Your task to perform on an android device: What's the weather? Image 0: 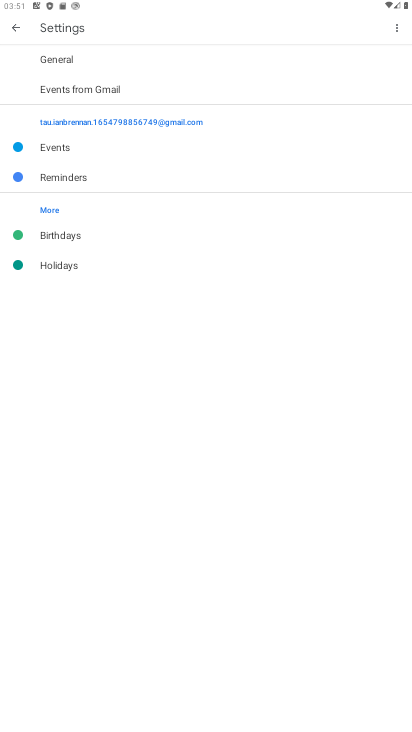
Step 0: press home button
Your task to perform on an android device: What's the weather? Image 1: 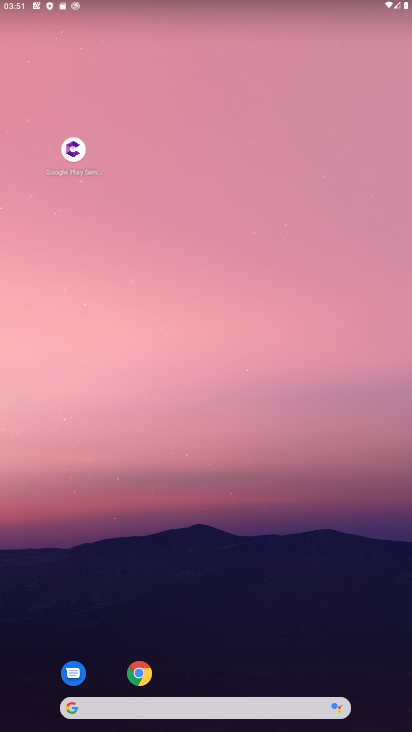
Step 1: drag from (305, 636) to (273, 106)
Your task to perform on an android device: What's the weather? Image 2: 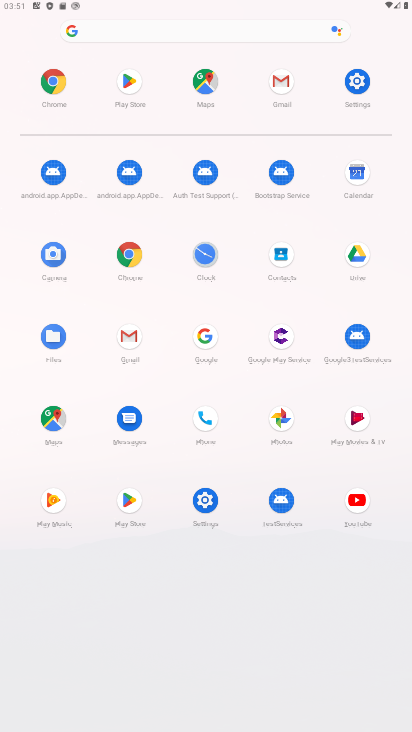
Step 2: click (125, 255)
Your task to perform on an android device: What's the weather? Image 3: 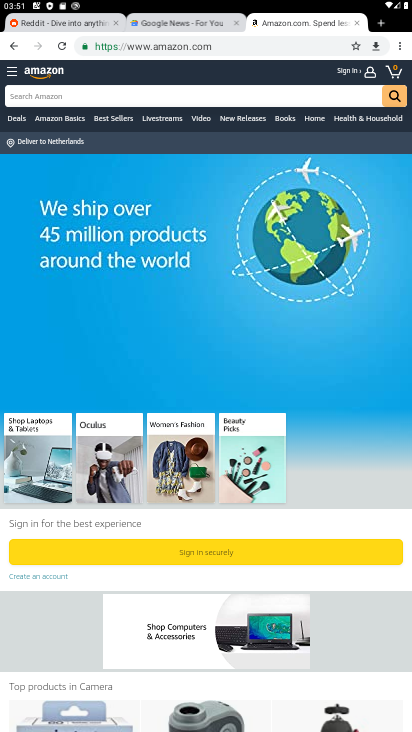
Step 3: click (199, 46)
Your task to perform on an android device: What's the weather? Image 4: 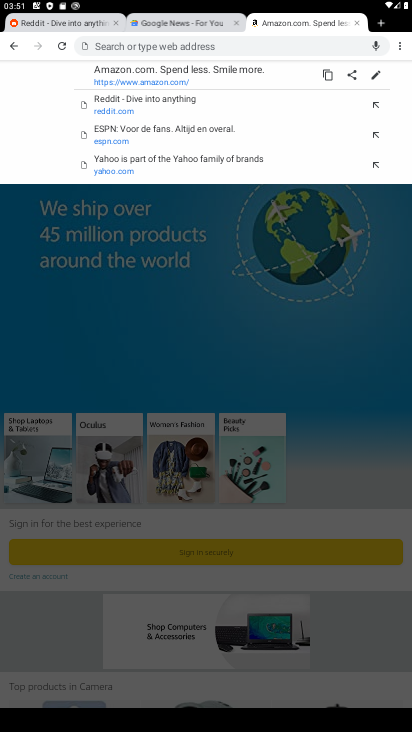
Step 4: type "weather"
Your task to perform on an android device: What's the weather? Image 5: 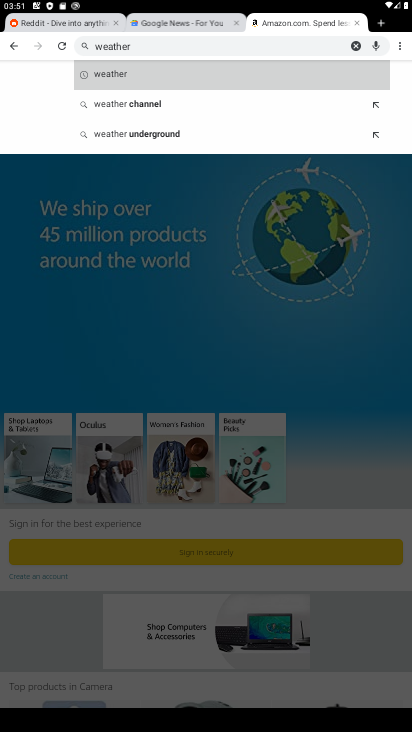
Step 5: click (158, 76)
Your task to perform on an android device: What's the weather? Image 6: 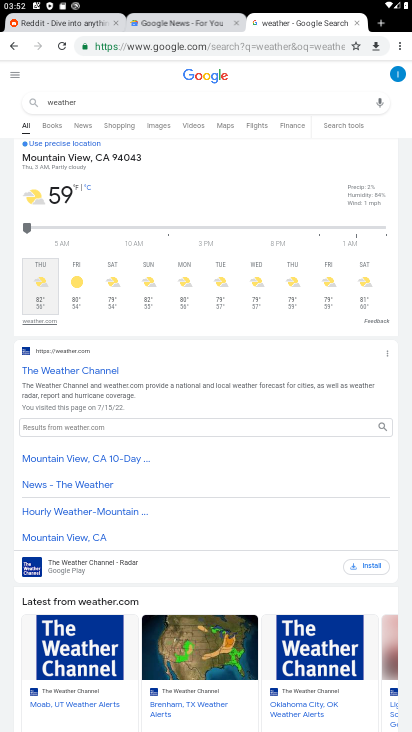
Step 6: task complete